Your task to perform on an android device: Empty the shopping cart on bestbuy. Add bose soundlink to the cart on bestbuy, then select checkout. Image 0: 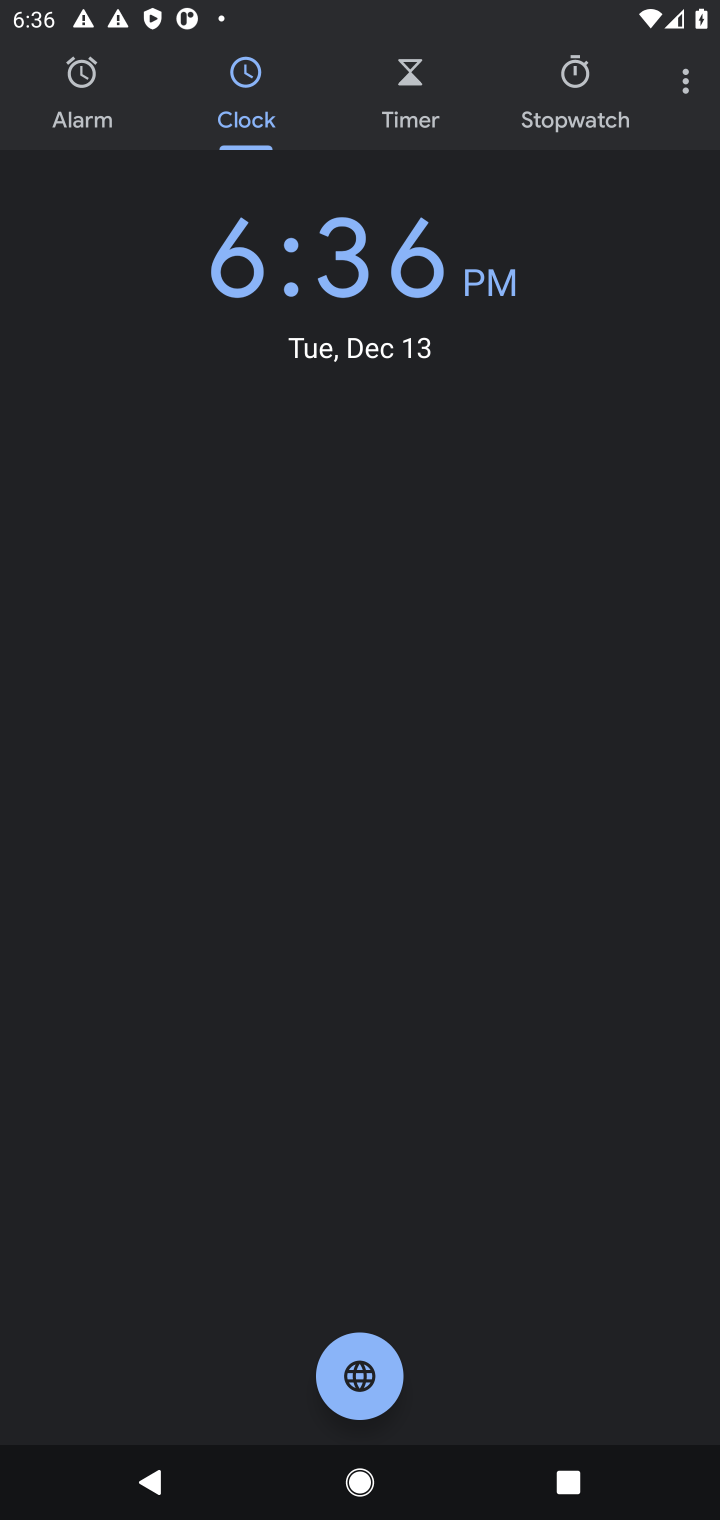
Step 0: press home button
Your task to perform on an android device: Empty the shopping cart on bestbuy. Add bose soundlink to the cart on bestbuy, then select checkout. Image 1: 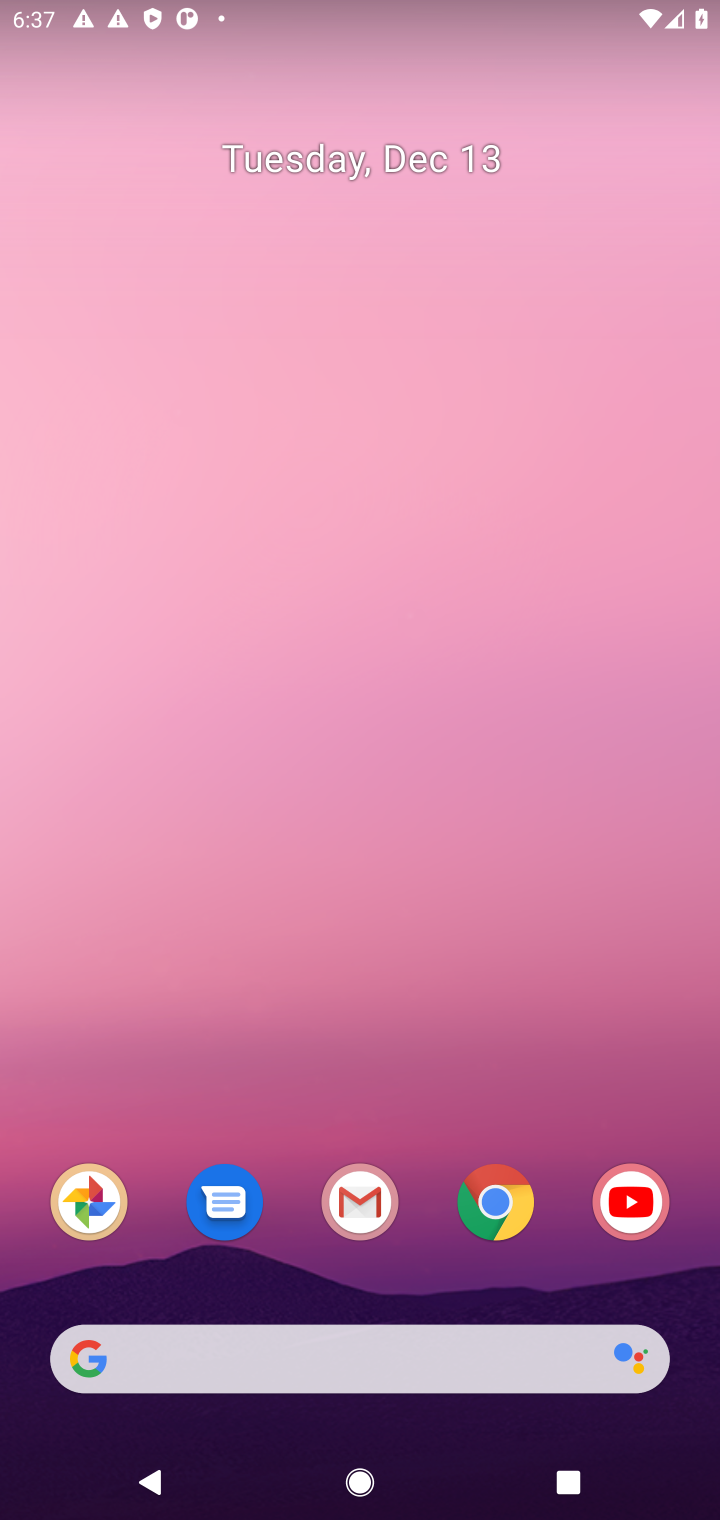
Step 1: click (488, 1209)
Your task to perform on an android device: Empty the shopping cart on bestbuy. Add bose soundlink to the cart on bestbuy, then select checkout. Image 2: 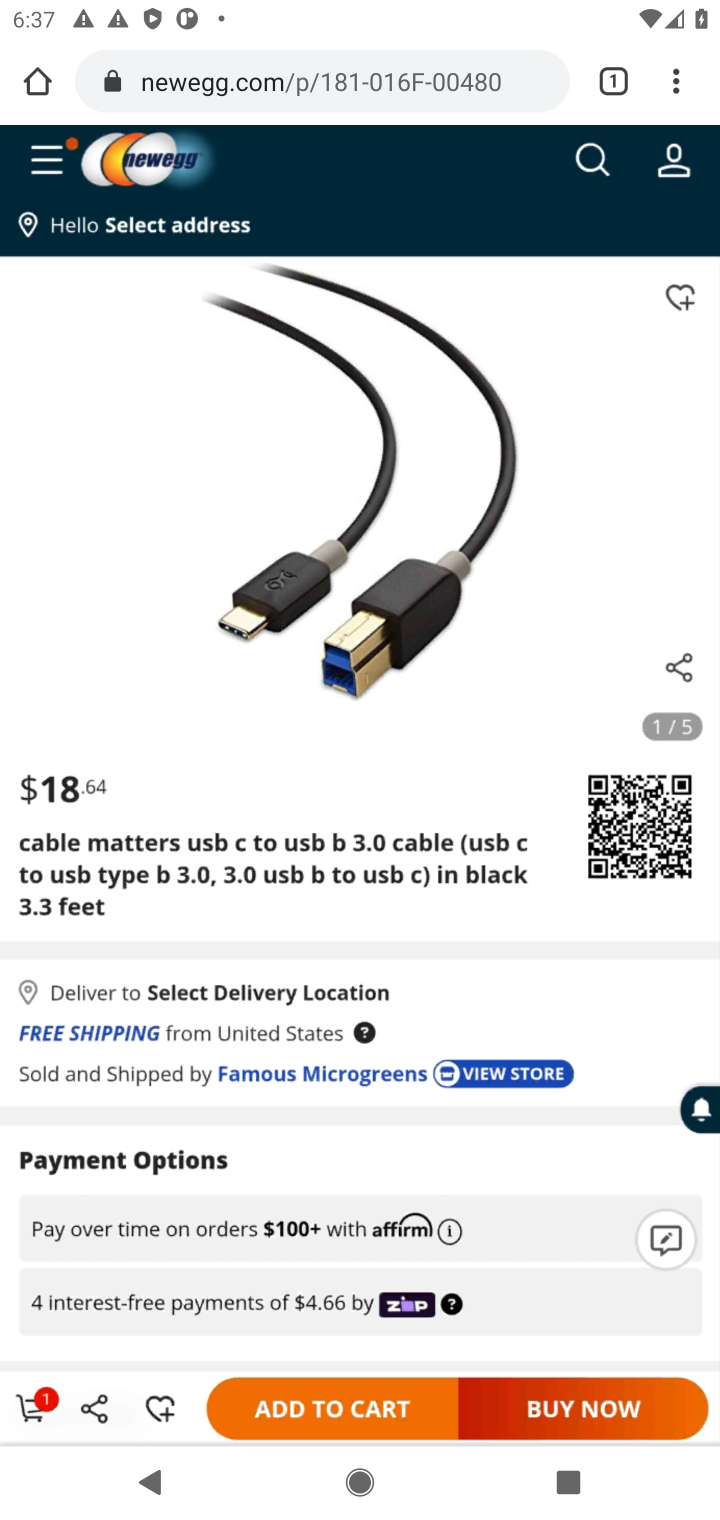
Step 2: click (275, 79)
Your task to perform on an android device: Empty the shopping cart on bestbuy. Add bose soundlink to the cart on bestbuy, then select checkout. Image 3: 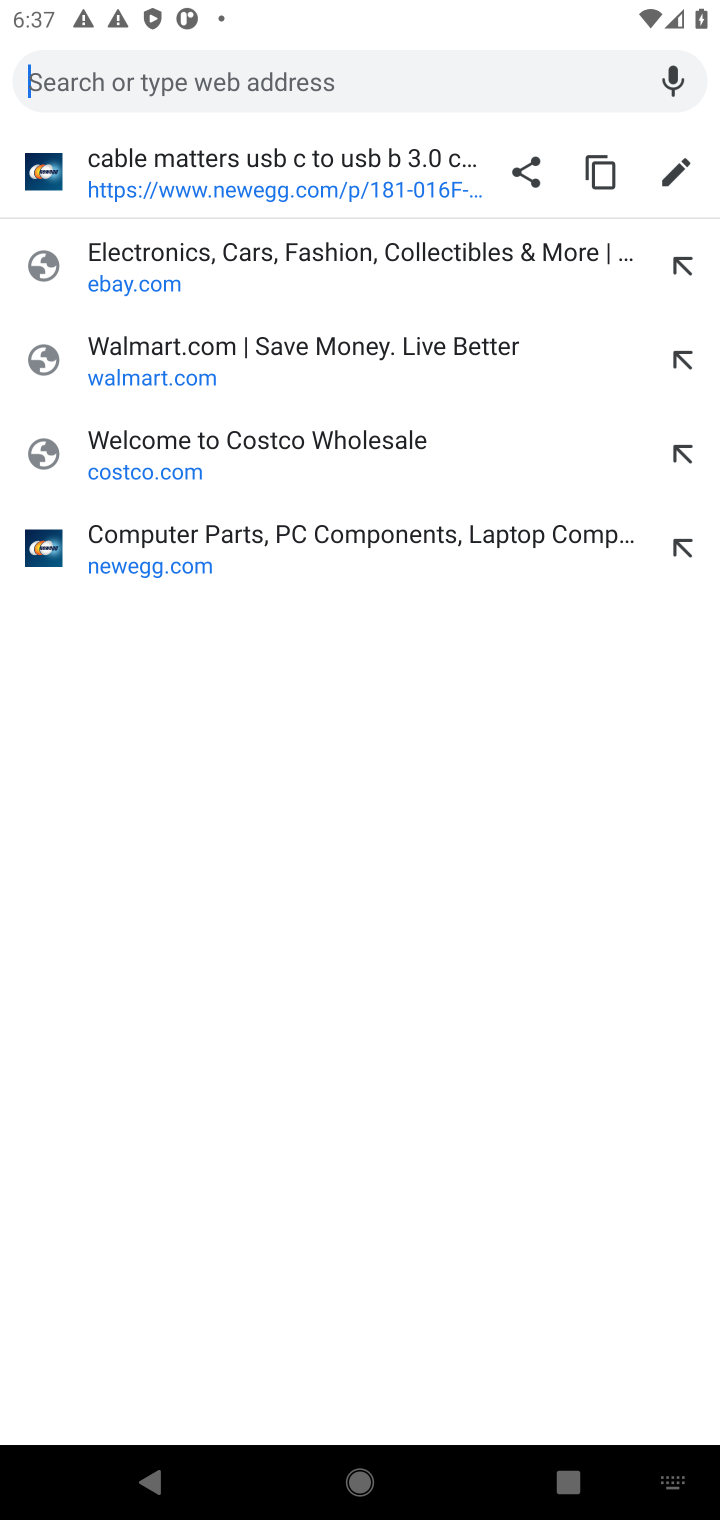
Step 3: type "bestbuy.com"
Your task to perform on an android device: Empty the shopping cart on bestbuy. Add bose soundlink to the cart on bestbuy, then select checkout. Image 4: 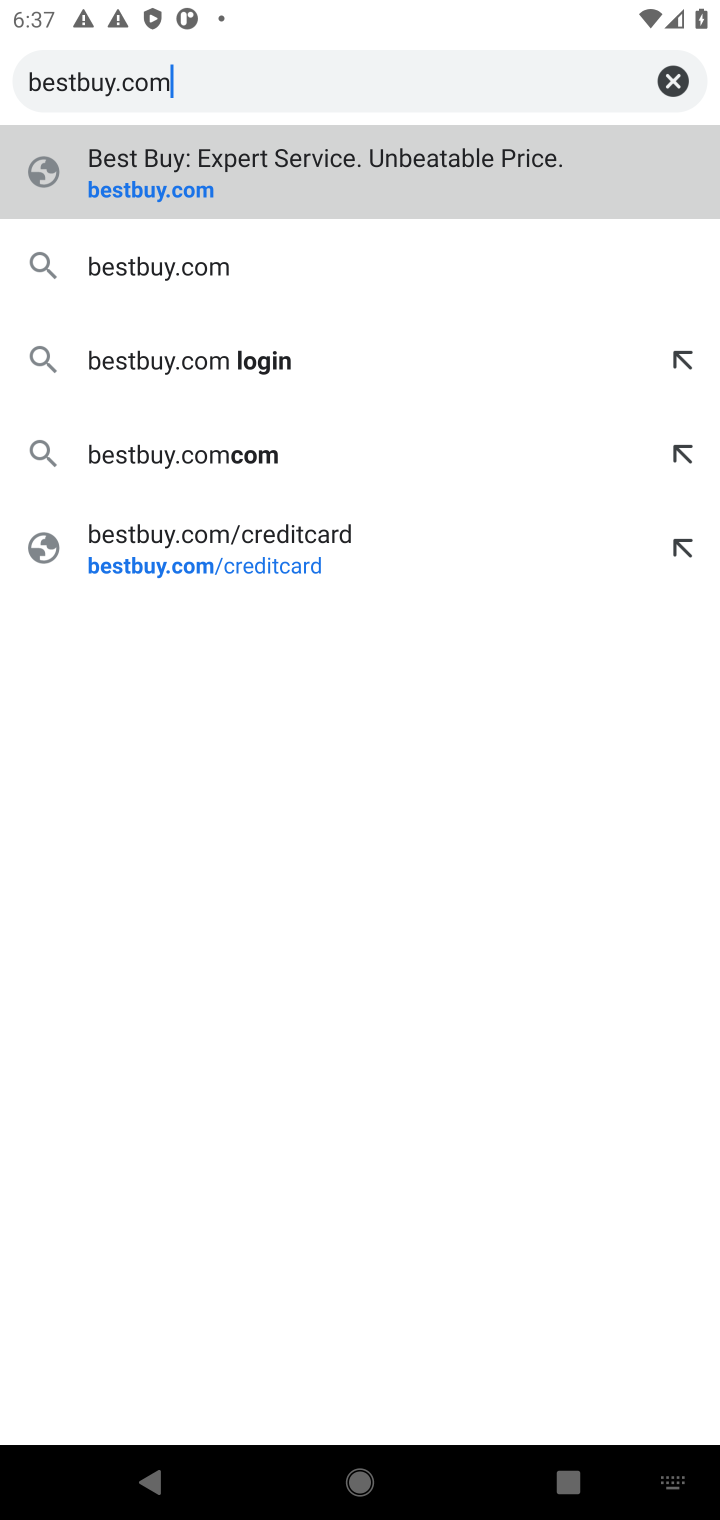
Step 4: click (166, 191)
Your task to perform on an android device: Empty the shopping cart on bestbuy. Add bose soundlink to the cart on bestbuy, then select checkout. Image 5: 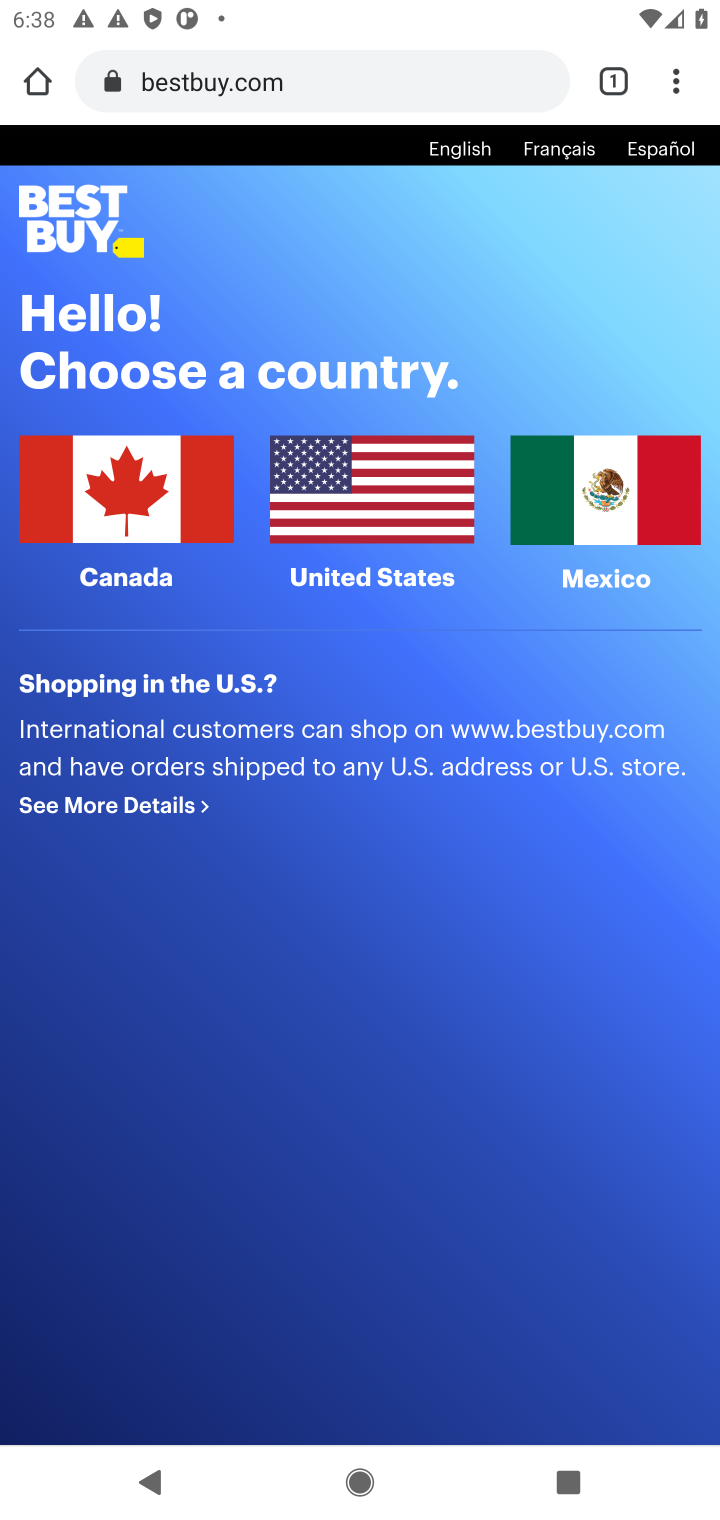
Step 5: click (337, 500)
Your task to perform on an android device: Empty the shopping cart on bestbuy. Add bose soundlink to the cart on bestbuy, then select checkout. Image 6: 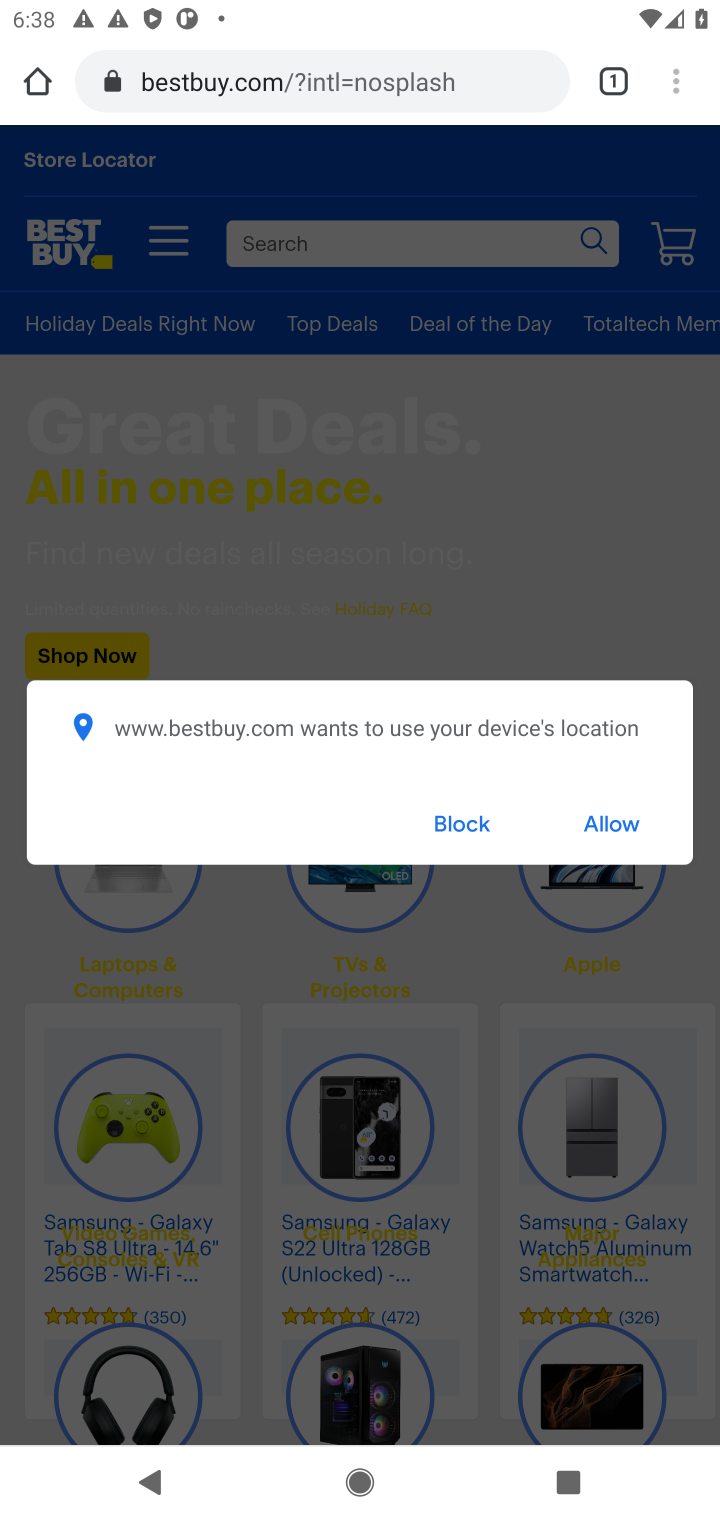
Step 6: click (456, 834)
Your task to perform on an android device: Empty the shopping cart on bestbuy. Add bose soundlink to the cart on bestbuy, then select checkout. Image 7: 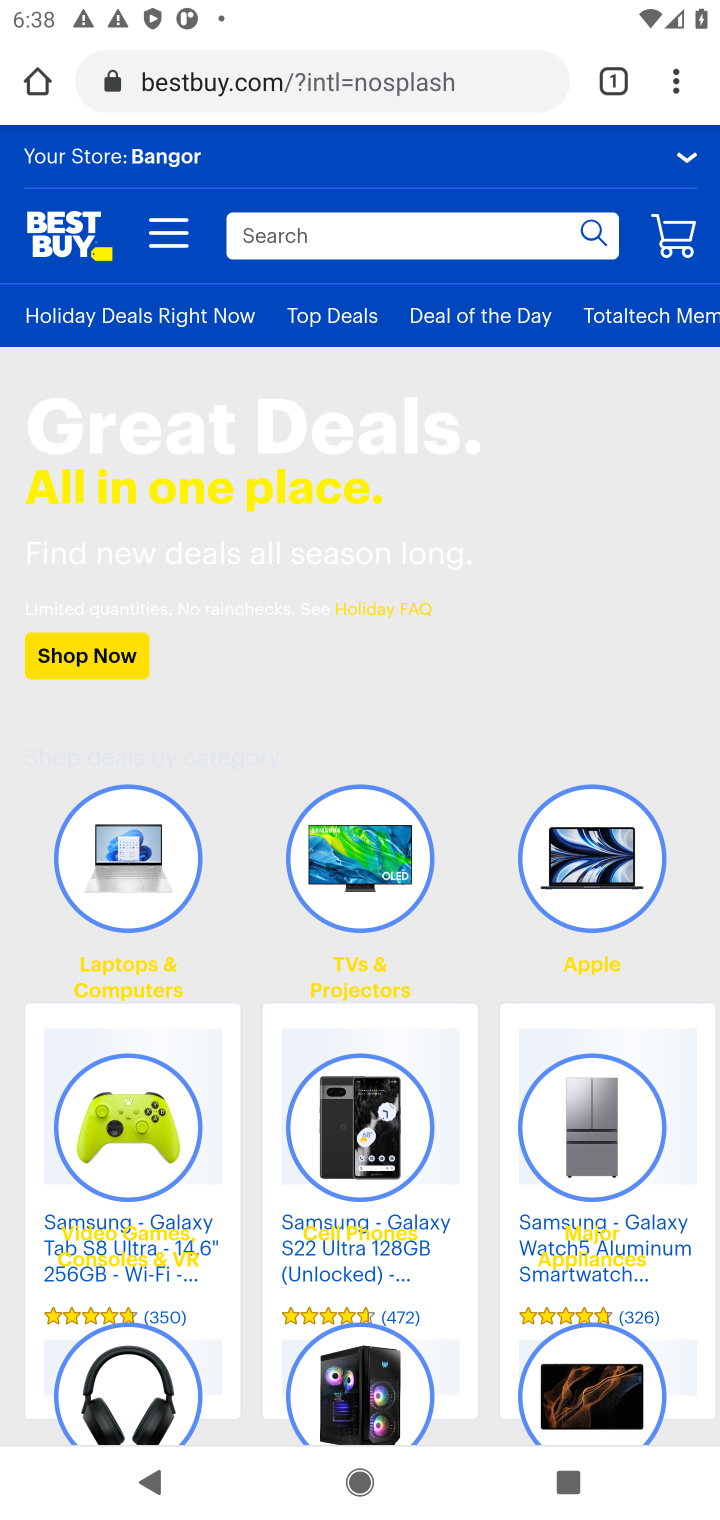
Step 7: click (678, 236)
Your task to perform on an android device: Empty the shopping cart on bestbuy. Add bose soundlink to the cart on bestbuy, then select checkout. Image 8: 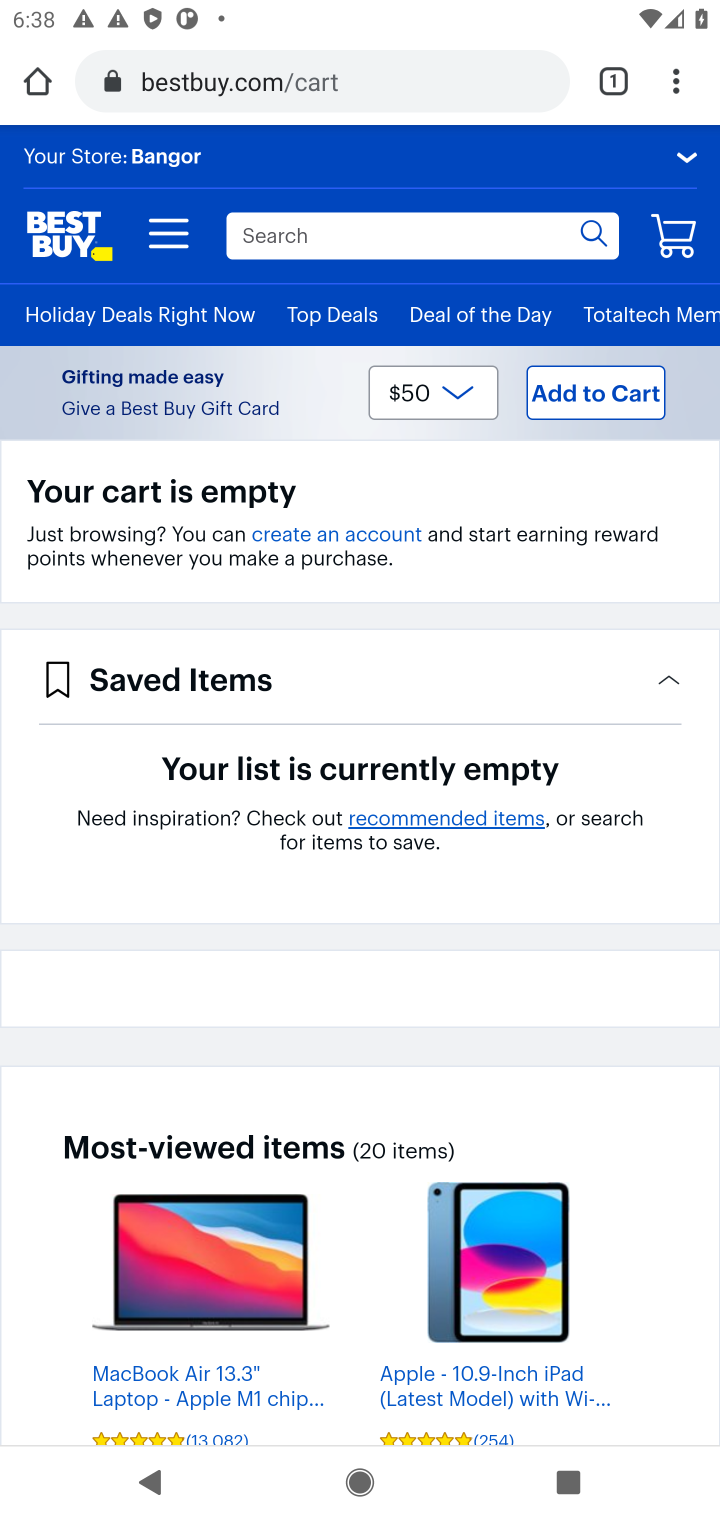
Step 8: click (282, 240)
Your task to perform on an android device: Empty the shopping cart on bestbuy. Add bose soundlink to the cart on bestbuy, then select checkout. Image 9: 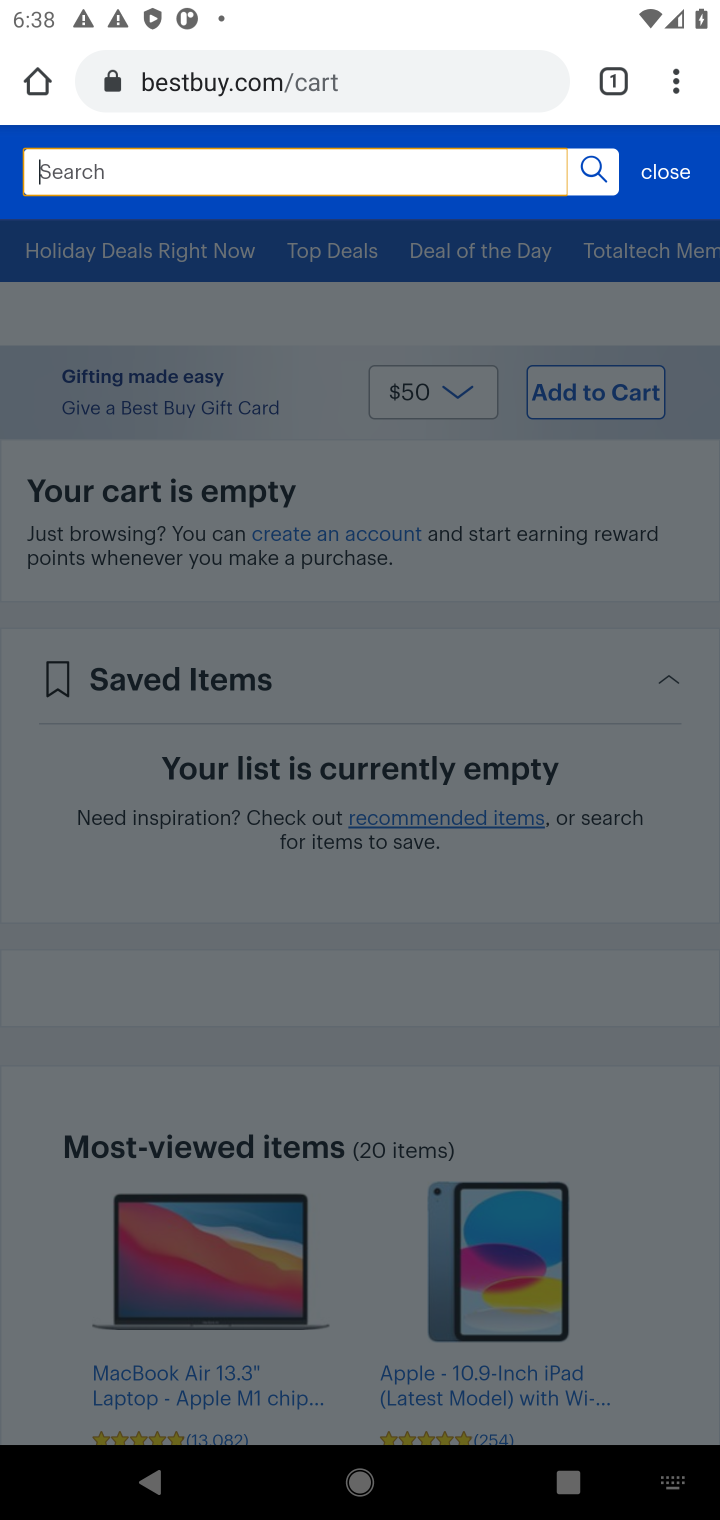
Step 9: type "bose soundlink"
Your task to perform on an android device: Empty the shopping cart on bestbuy. Add bose soundlink to the cart on bestbuy, then select checkout. Image 10: 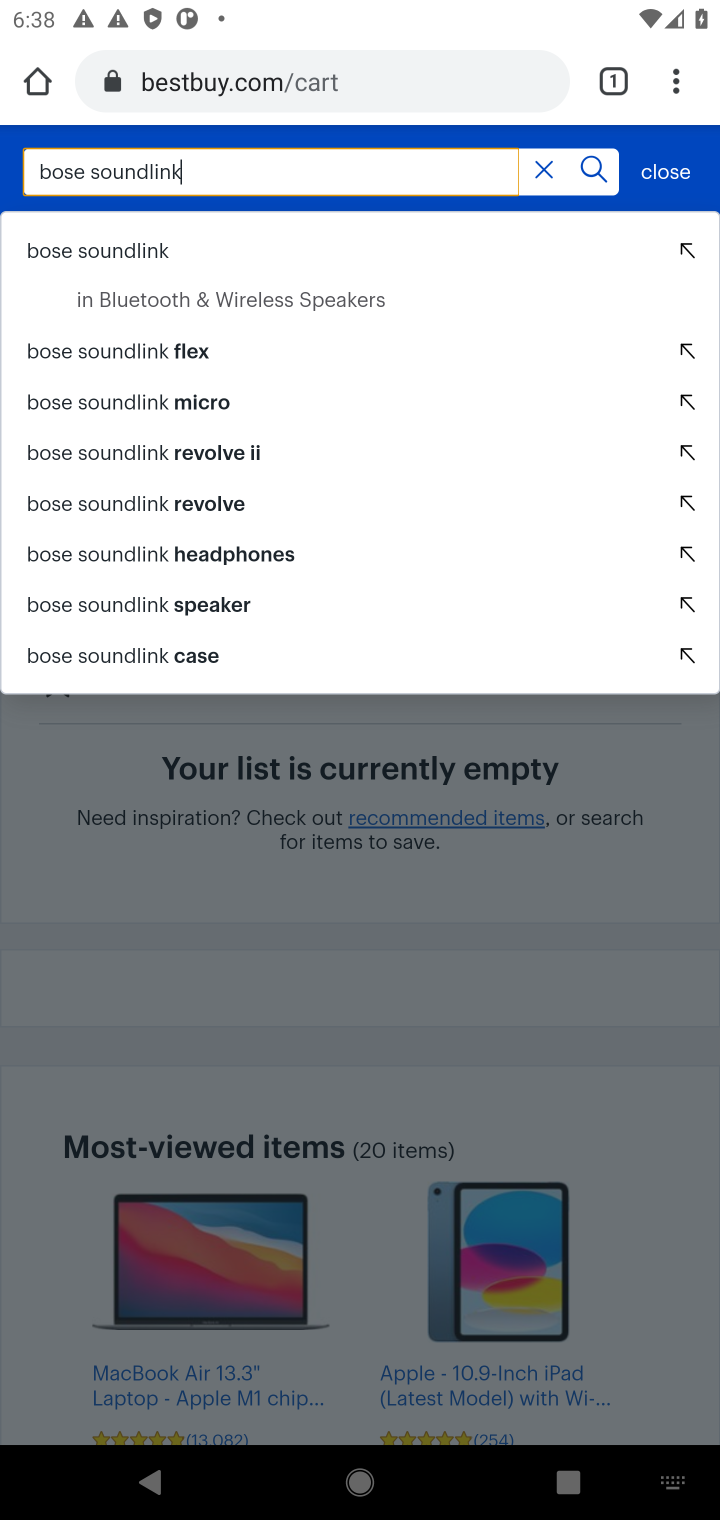
Step 10: click (132, 253)
Your task to perform on an android device: Empty the shopping cart on bestbuy. Add bose soundlink to the cart on bestbuy, then select checkout. Image 11: 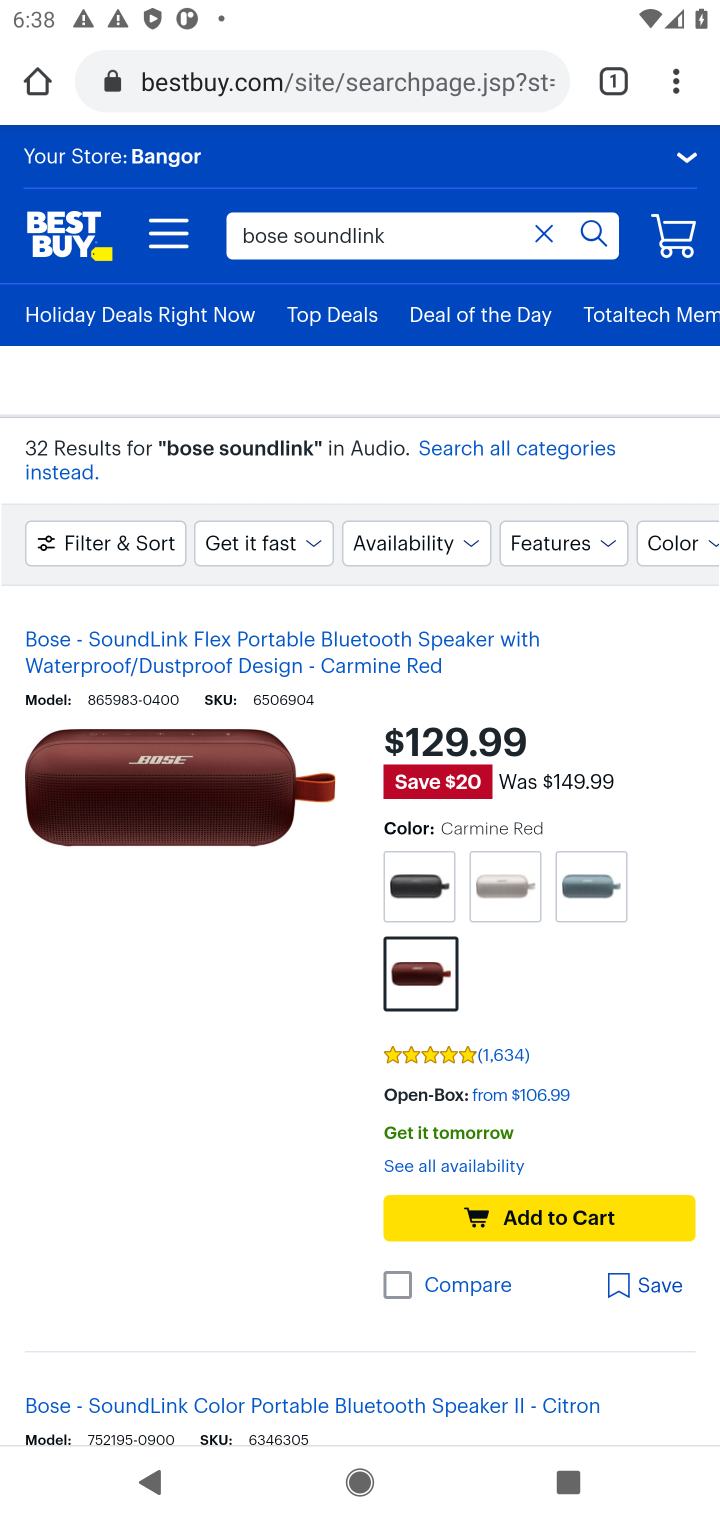
Step 11: click (491, 1210)
Your task to perform on an android device: Empty the shopping cart on bestbuy. Add bose soundlink to the cart on bestbuy, then select checkout. Image 12: 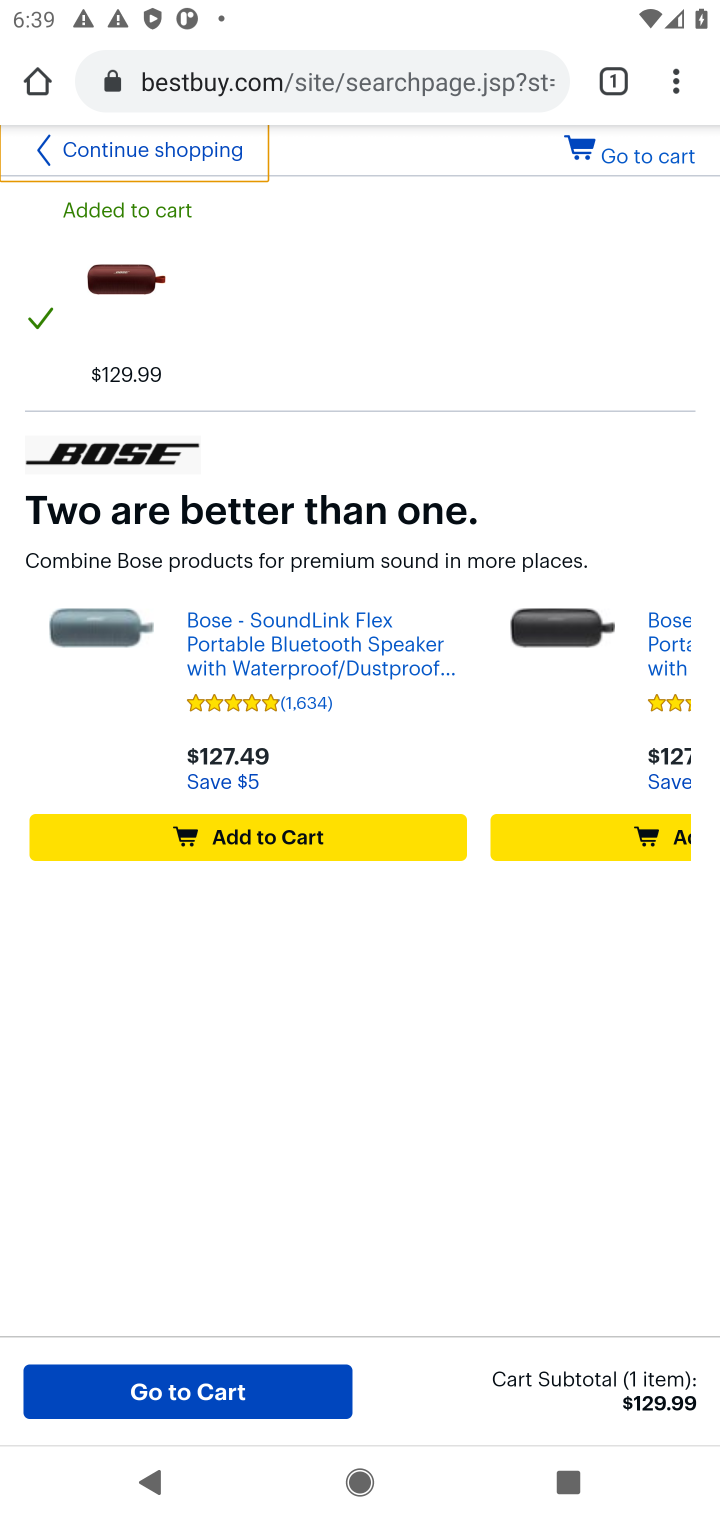
Step 12: click (654, 167)
Your task to perform on an android device: Empty the shopping cart on bestbuy. Add bose soundlink to the cart on bestbuy, then select checkout. Image 13: 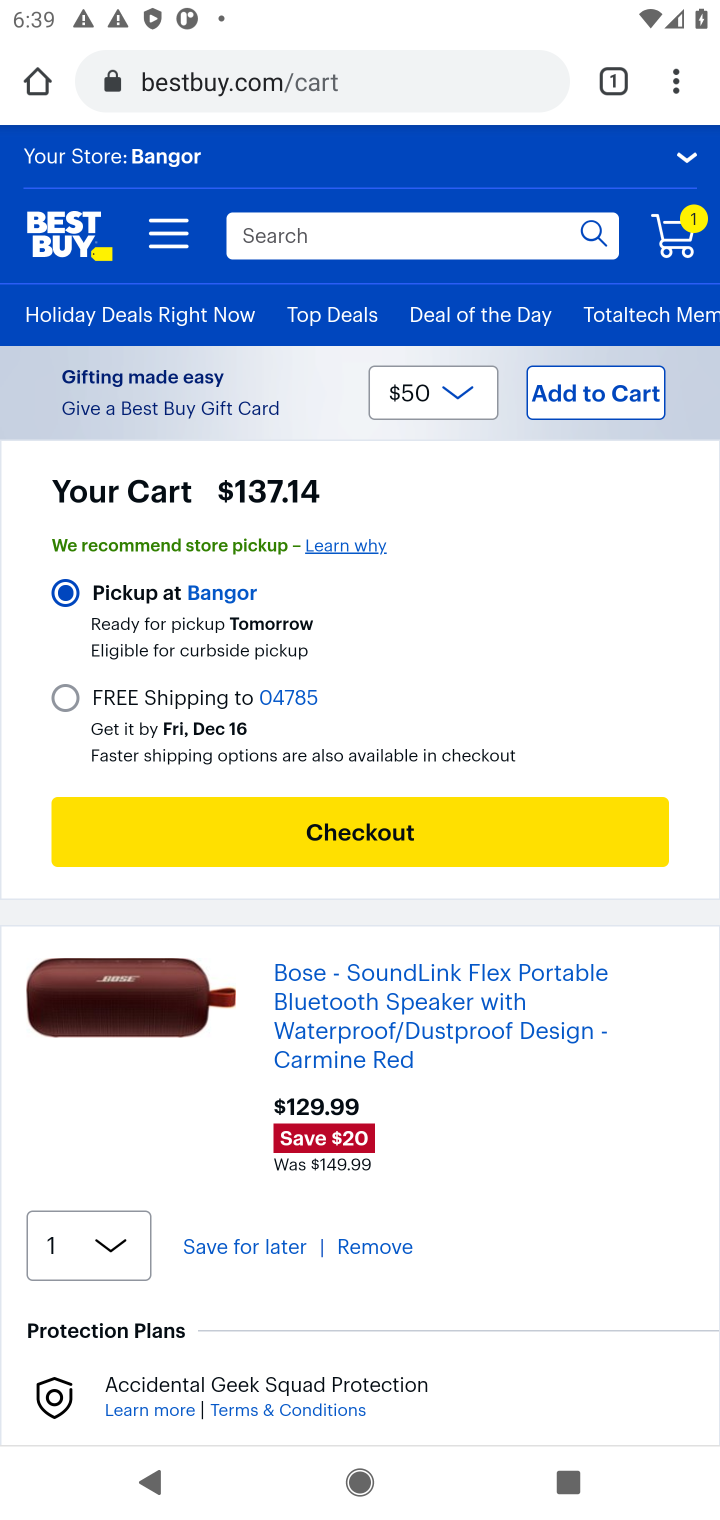
Step 13: click (329, 842)
Your task to perform on an android device: Empty the shopping cart on bestbuy. Add bose soundlink to the cart on bestbuy, then select checkout. Image 14: 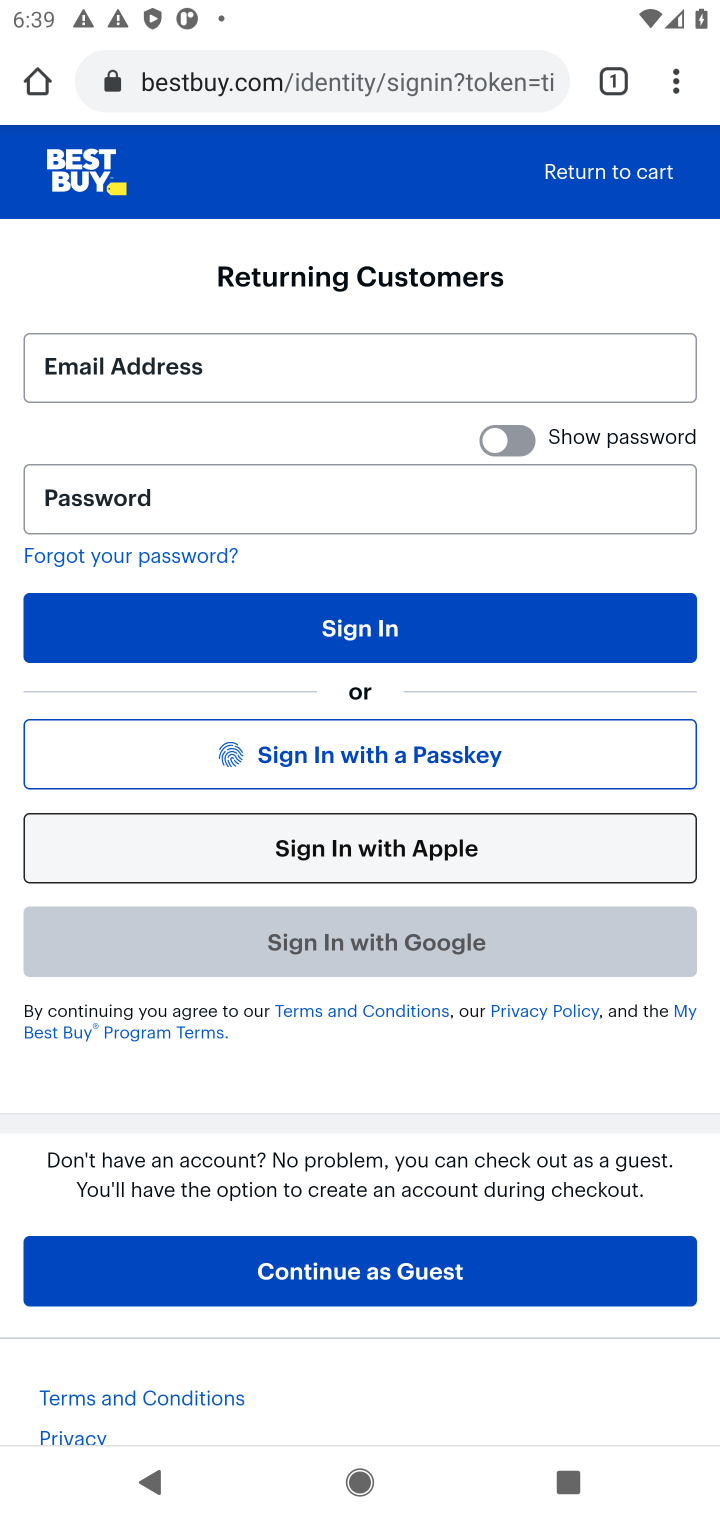
Step 14: task complete